Your task to perform on an android device: Open Chrome and go to settings Image 0: 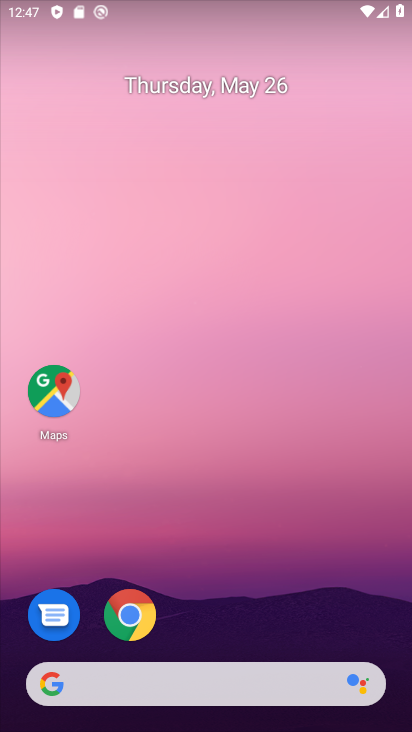
Step 0: click (125, 615)
Your task to perform on an android device: Open Chrome and go to settings Image 1: 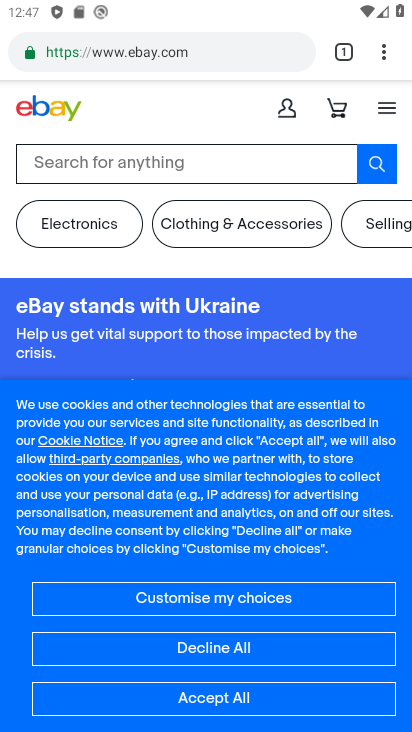
Step 1: task complete